Your task to perform on an android device: turn off improve location accuracy Image 0: 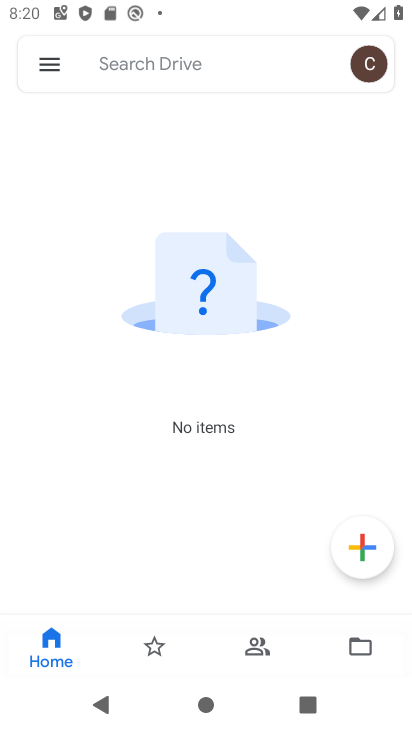
Step 0: press home button
Your task to perform on an android device: turn off improve location accuracy Image 1: 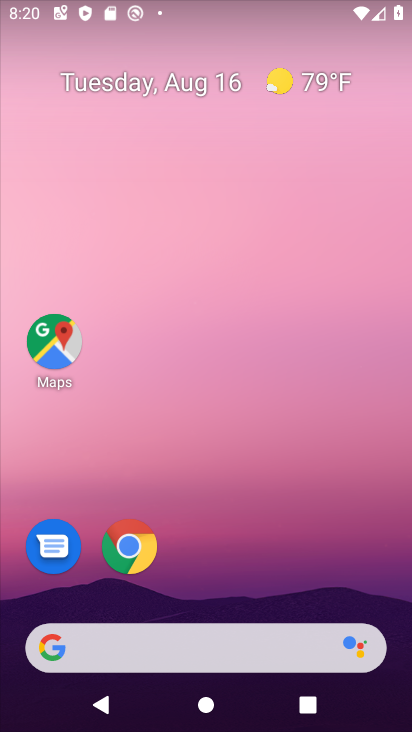
Step 1: drag from (192, 493) to (208, 6)
Your task to perform on an android device: turn off improve location accuracy Image 2: 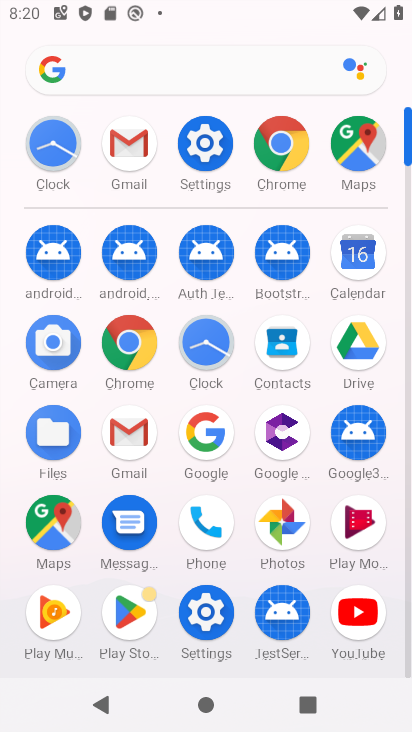
Step 2: click (203, 144)
Your task to perform on an android device: turn off improve location accuracy Image 3: 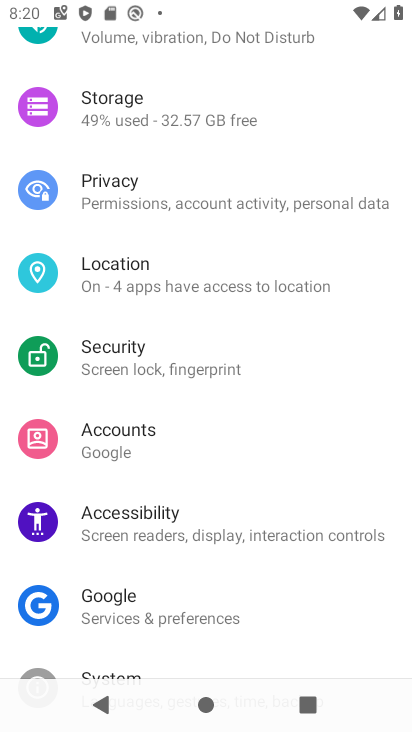
Step 3: click (132, 280)
Your task to perform on an android device: turn off improve location accuracy Image 4: 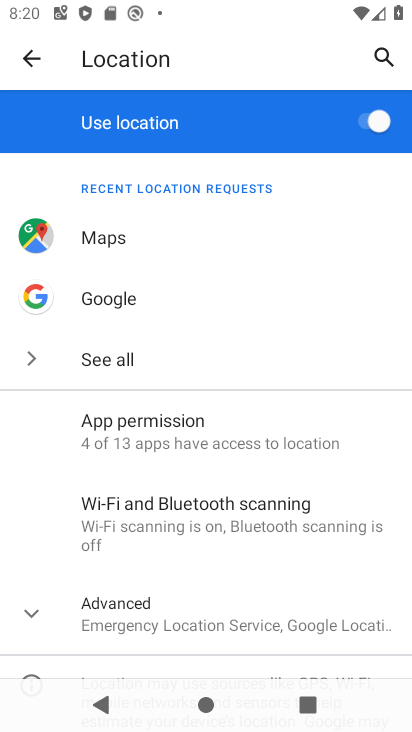
Step 4: drag from (192, 472) to (227, 141)
Your task to perform on an android device: turn off improve location accuracy Image 5: 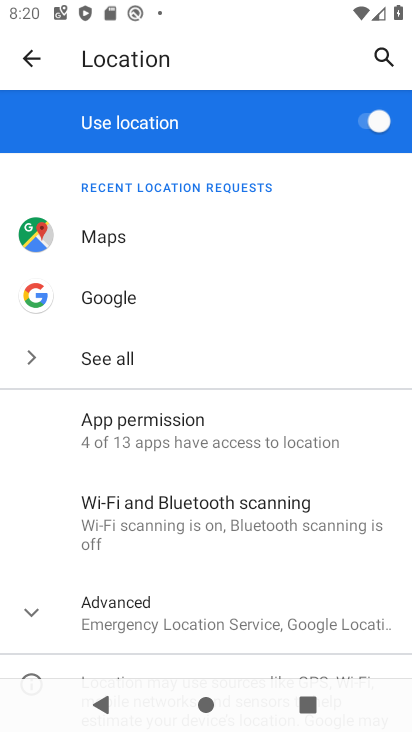
Step 5: click (102, 628)
Your task to perform on an android device: turn off improve location accuracy Image 6: 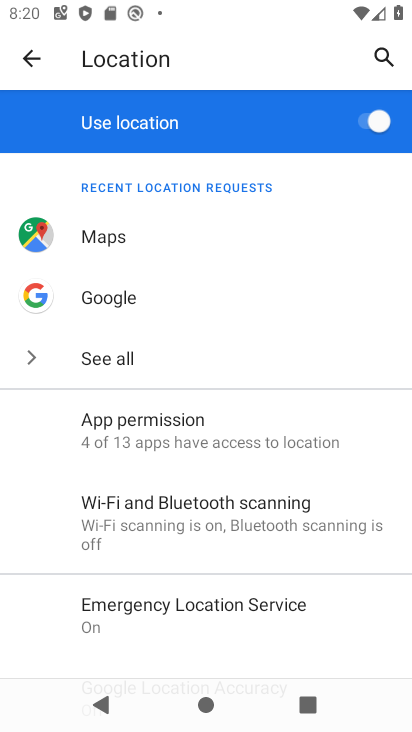
Step 6: drag from (204, 616) to (234, 284)
Your task to perform on an android device: turn off improve location accuracy Image 7: 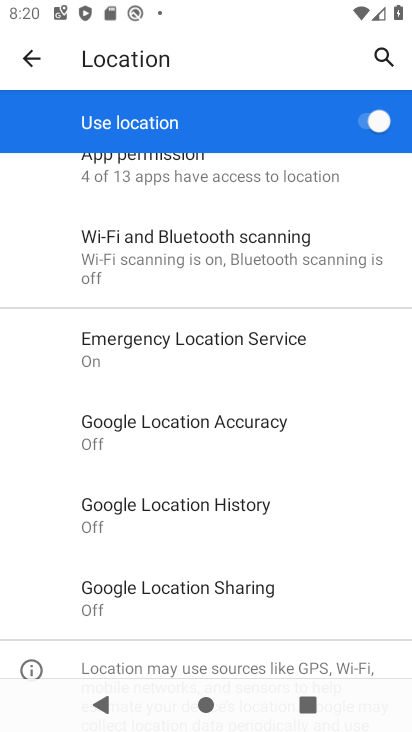
Step 7: click (164, 424)
Your task to perform on an android device: turn off improve location accuracy Image 8: 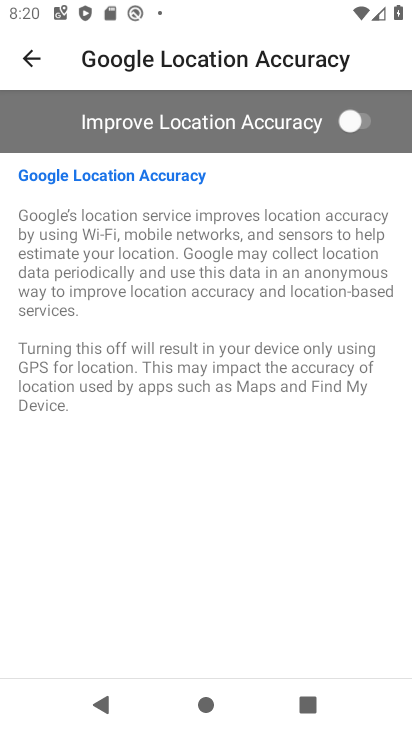
Step 8: task complete